Your task to perform on an android device: Go to settings Image 0: 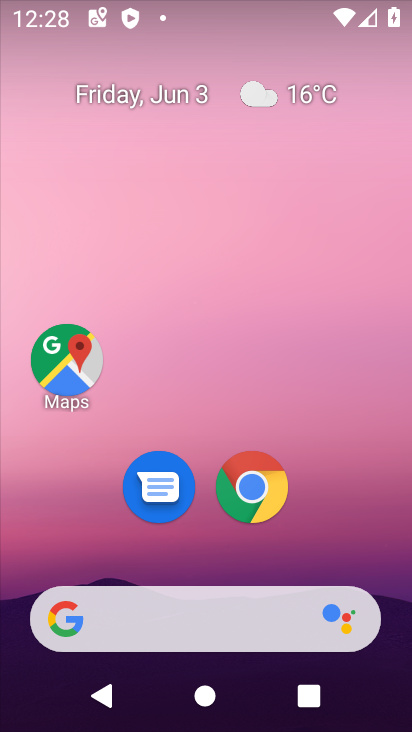
Step 0: drag from (182, 616) to (213, 141)
Your task to perform on an android device: Go to settings Image 1: 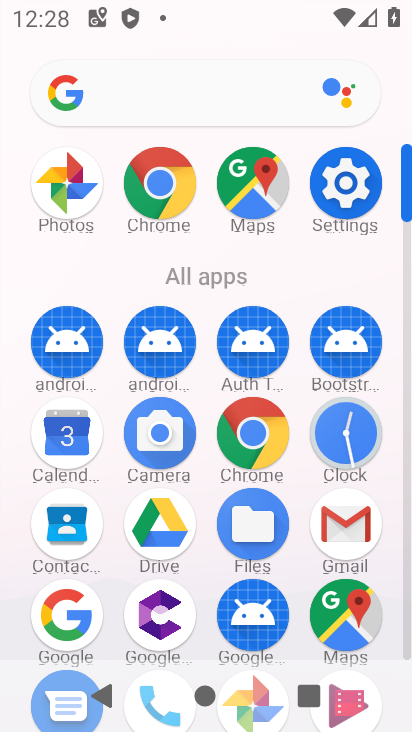
Step 1: click (357, 215)
Your task to perform on an android device: Go to settings Image 2: 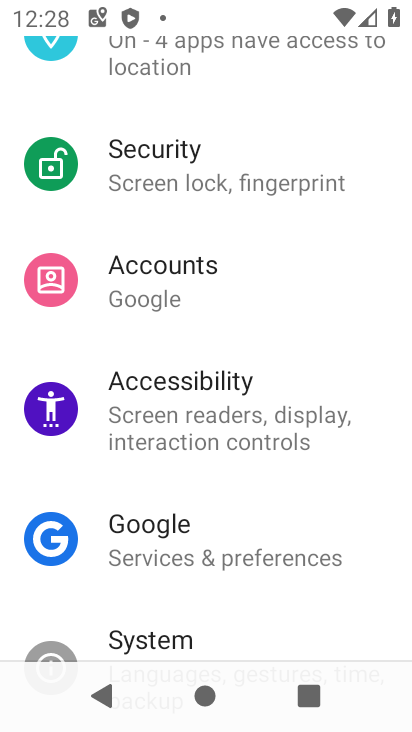
Step 2: task complete